Your task to perform on an android device: change notifications settings Image 0: 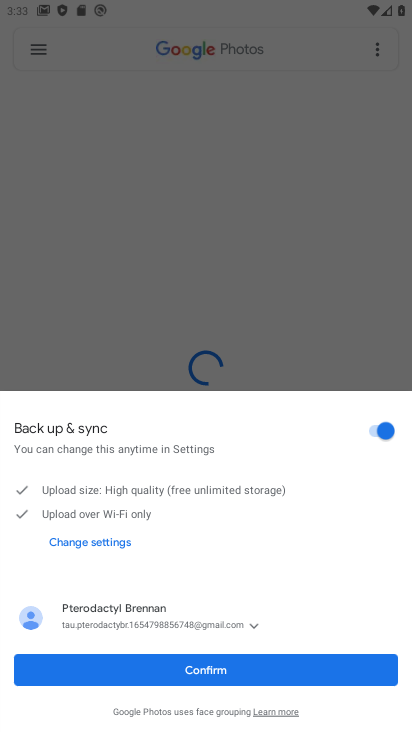
Step 0: click (314, 167)
Your task to perform on an android device: change notifications settings Image 1: 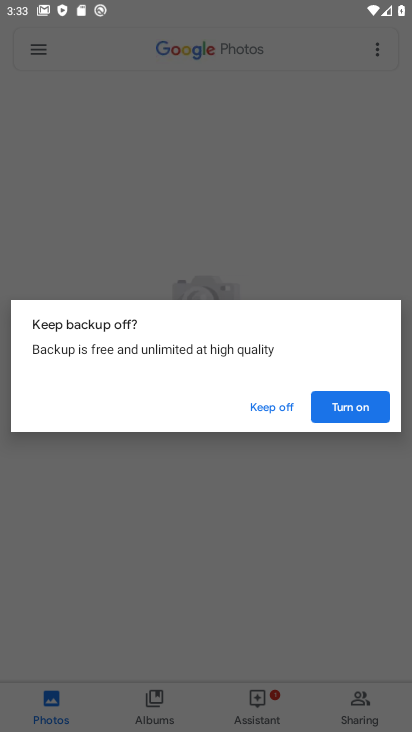
Step 1: press home button
Your task to perform on an android device: change notifications settings Image 2: 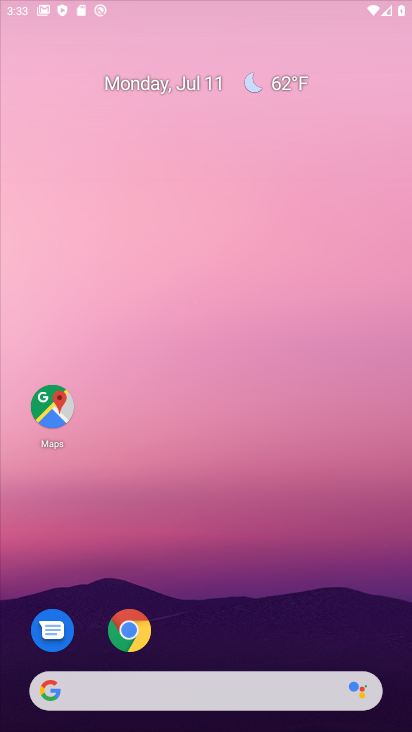
Step 2: drag from (274, 538) to (267, 161)
Your task to perform on an android device: change notifications settings Image 3: 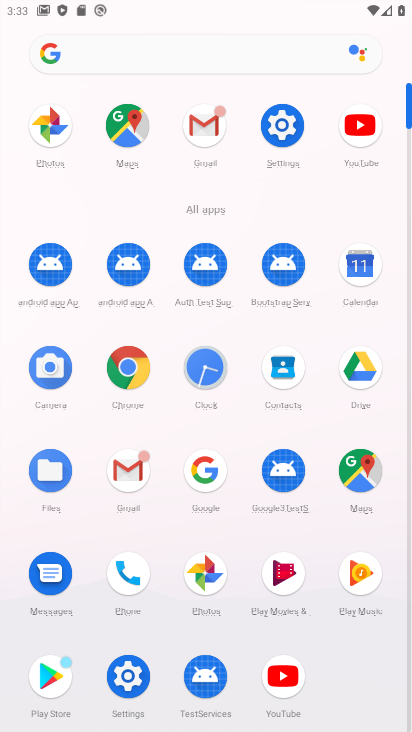
Step 3: click (291, 121)
Your task to perform on an android device: change notifications settings Image 4: 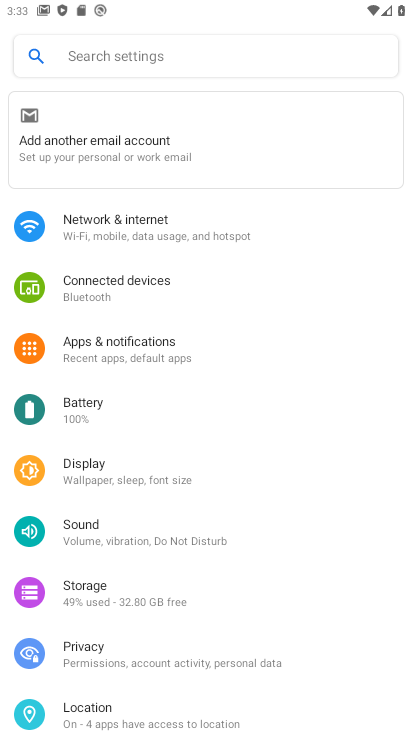
Step 4: click (209, 364)
Your task to perform on an android device: change notifications settings Image 5: 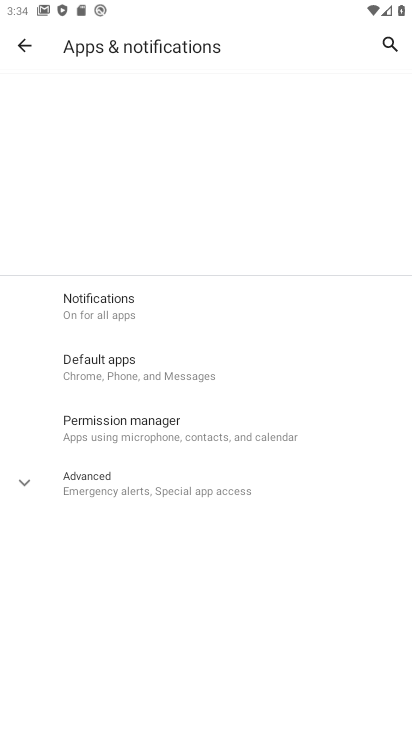
Step 5: click (130, 313)
Your task to perform on an android device: change notifications settings Image 6: 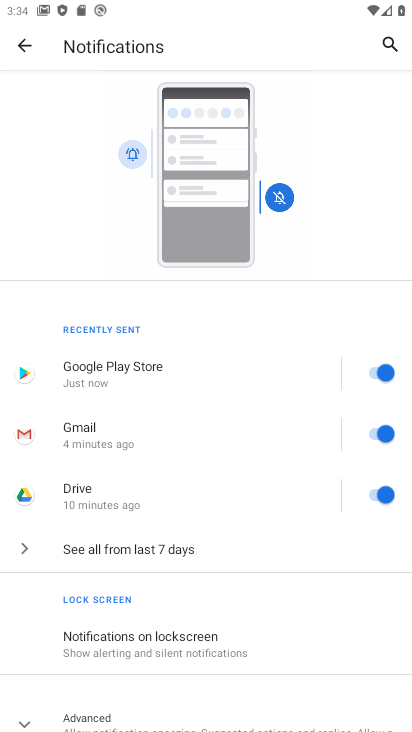
Step 6: click (217, 624)
Your task to perform on an android device: change notifications settings Image 7: 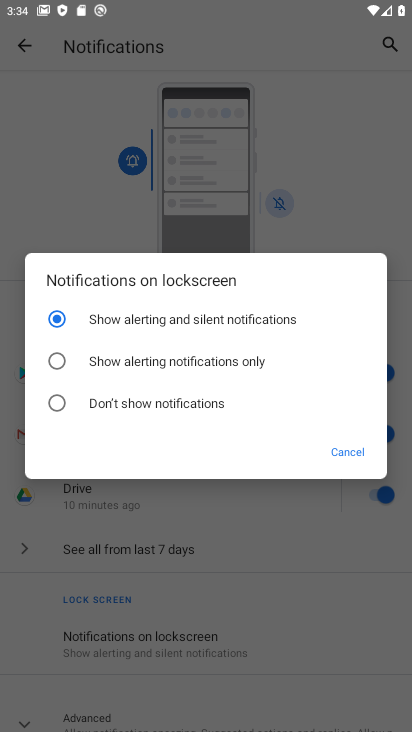
Step 7: click (231, 532)
Your task to perform on an android device: change notifications settings Image 8: 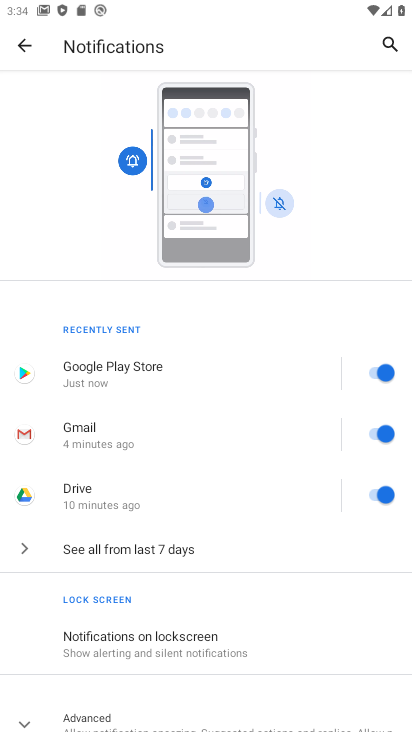
Step 8: click (163, 546)
Your task to perform on an android device: change notifications settings Image 9: 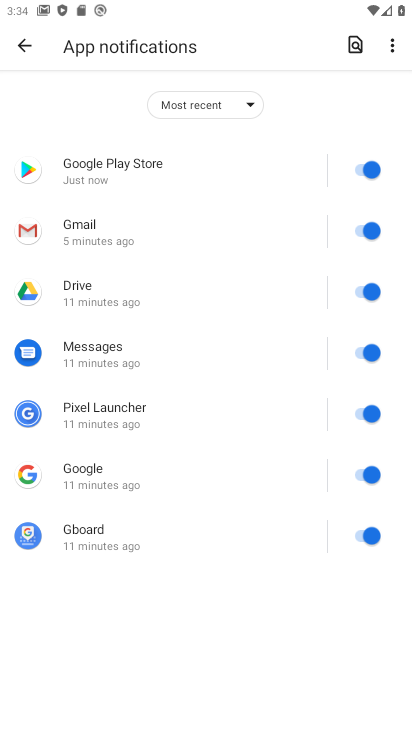
Step 9: click (362, 175)
Your task to perform on an android device: change notifications settings Image 10: 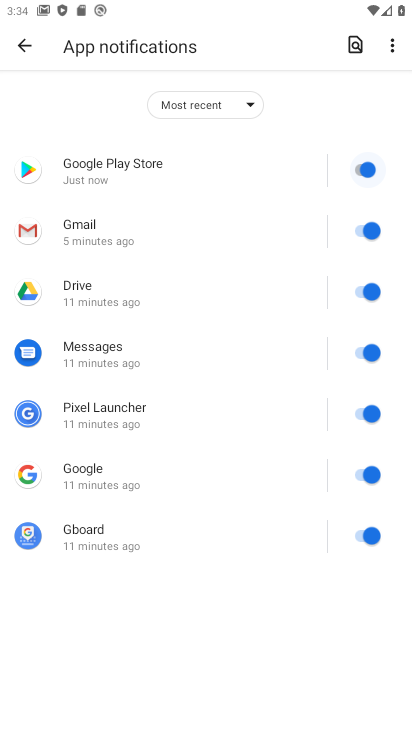
Step 10: click (366, 220)
Your task to perform on an android device: change notifications settings Image 11: 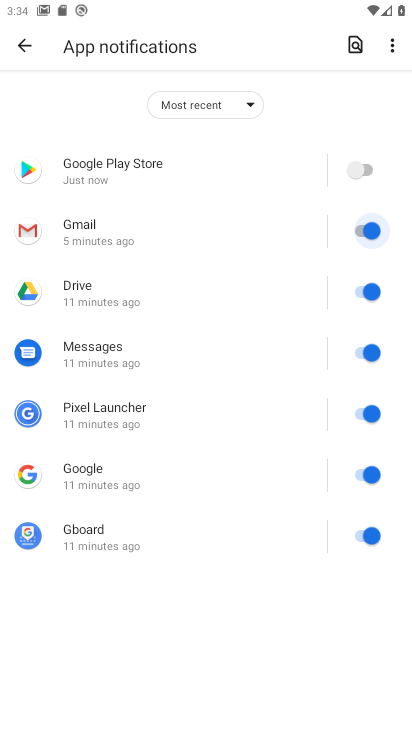
Step 11: click (362, 266)
Your task to perform on an android device: change notifications settings Image 12: 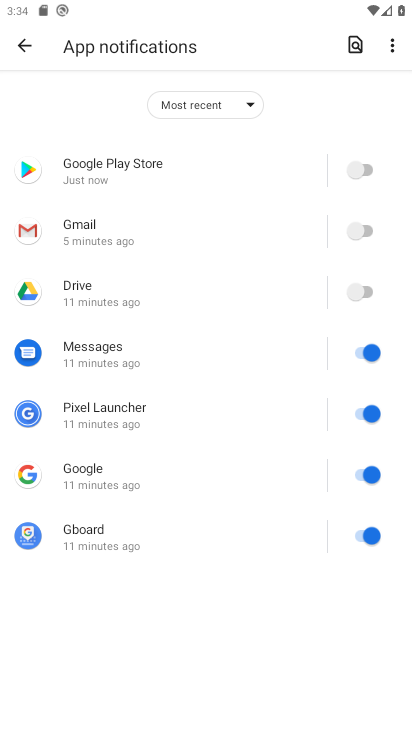
Step 12: click (364, 346)
Your task to perform on an android device: change notifications settings Image 13: 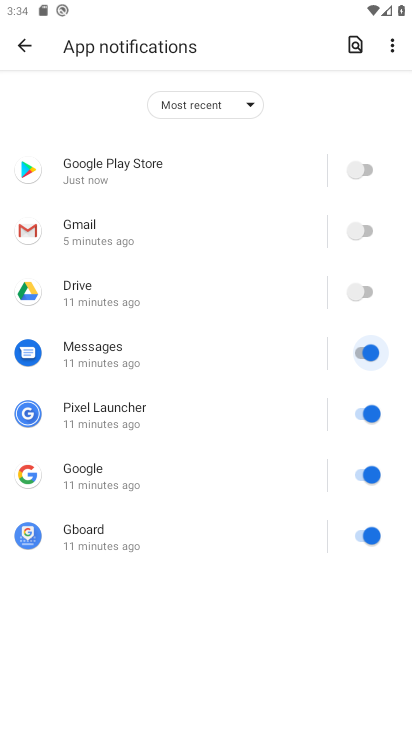
Step 13: click (364, 403)
Your task to perform on an android device: change notifications settings Image 14: 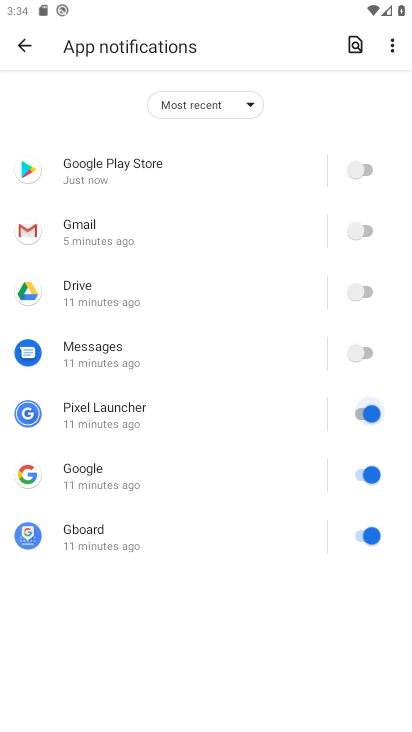
Step 14: click (364, 443)
Your task to perform on an android device: change notifications settings Image 15: 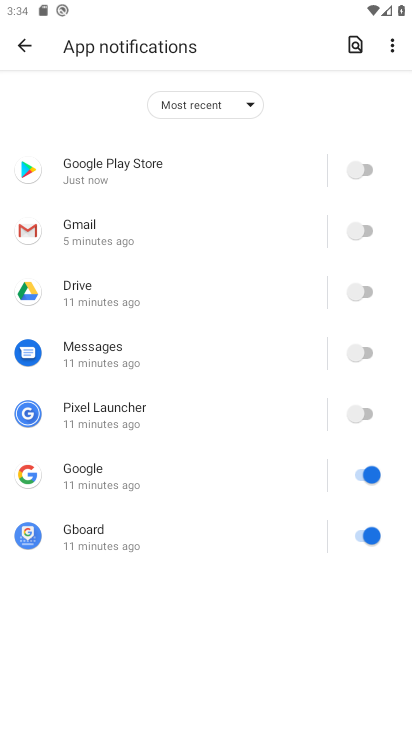
Step 15: click (368, 474)
Your task to perform on an android device: change notifications settings Image 16: 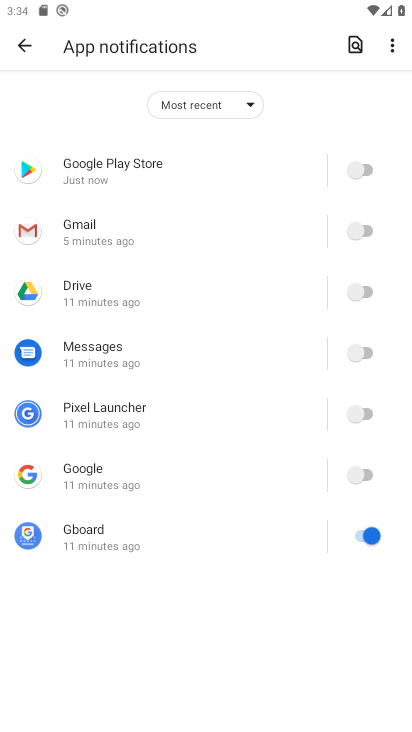
Step 16: click (358, 530)
Your task to perform on an android device: change notifications settings Image 17: 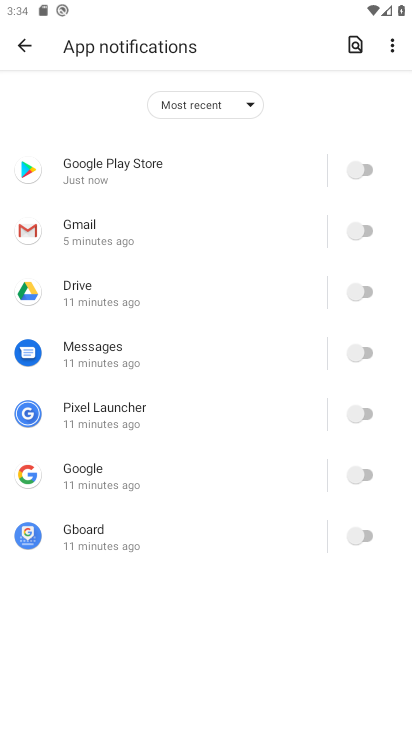
Step 17: task complete